Your task to perform on an android device: turn on the 24-hour format for clock Image 0: 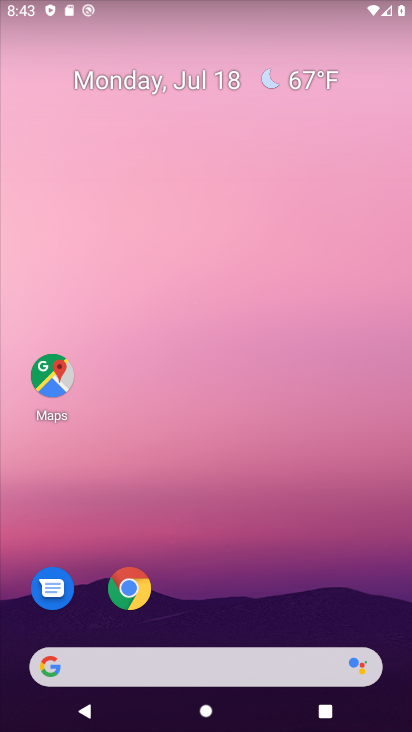
Step 0: drag from (364, 621) to (354, 148)
Your task to perform on an android device: turn on the 24-hour format for clock Image 1: 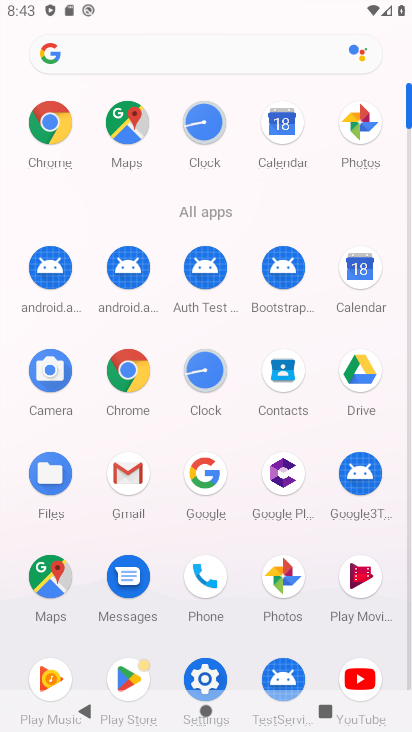
Step 1: click (199, 372)
Your task to perform on an android device: turn on the 24-hour format for clock Image 2: 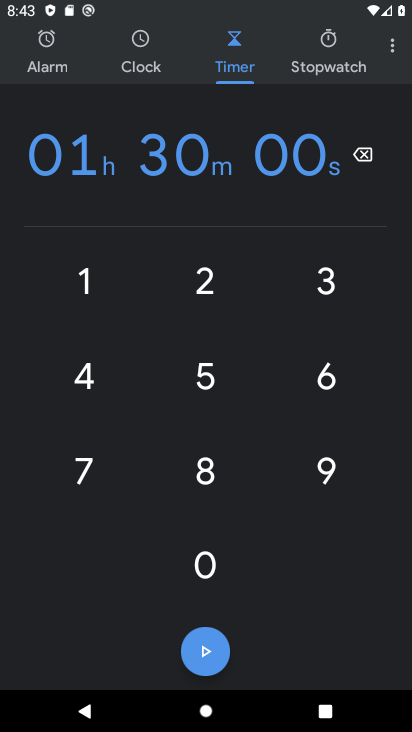
Step 2: click (392, 56)
Your task to perform on an android device: turn on the 24-hour format for clock Image 3: 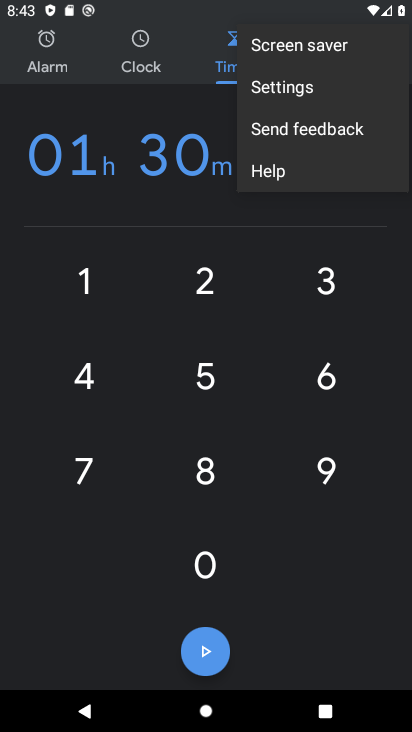
Step 3: click (283, 89)
Your task to perform on an android device: turn on the 24-hour format for clock Image 4: 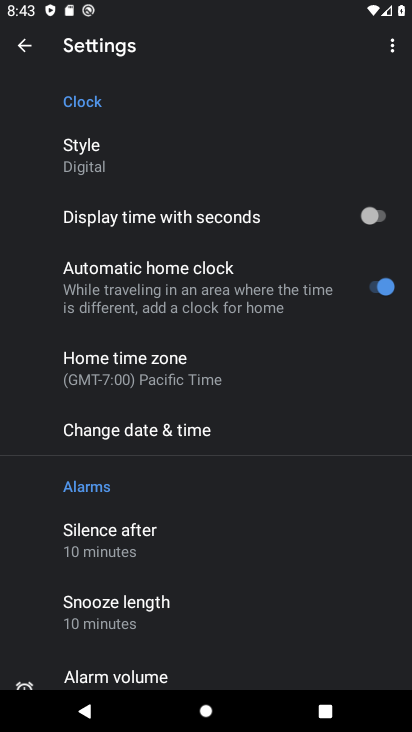
Step 4: click (166, 421)
Your task to perform on an android device: turn on the 24-hour format for clock Image 5: 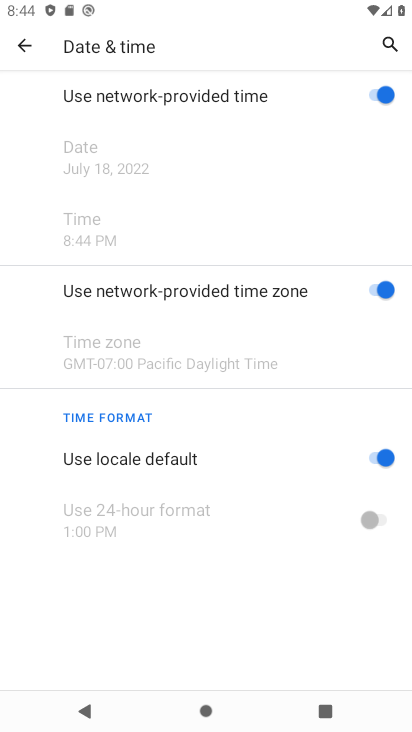
Step 5: click (368, 457)
Your task to perform on an android device: turn on the 24-hour format for clock Image 6: 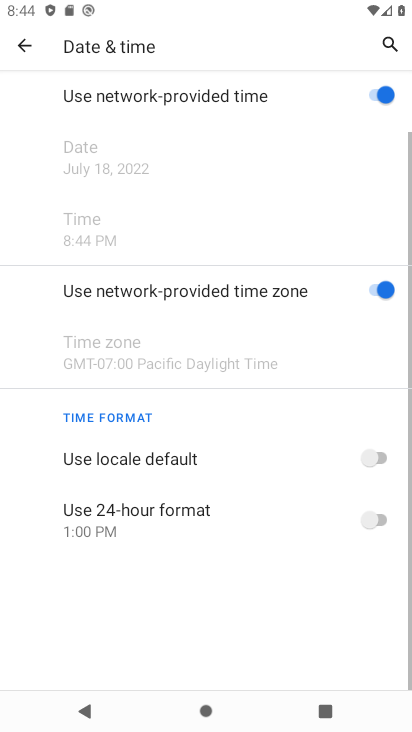
Step 6: click (378, 522)
Your task to perform on an android device: turn on the 24-hour format for clock Image 7: 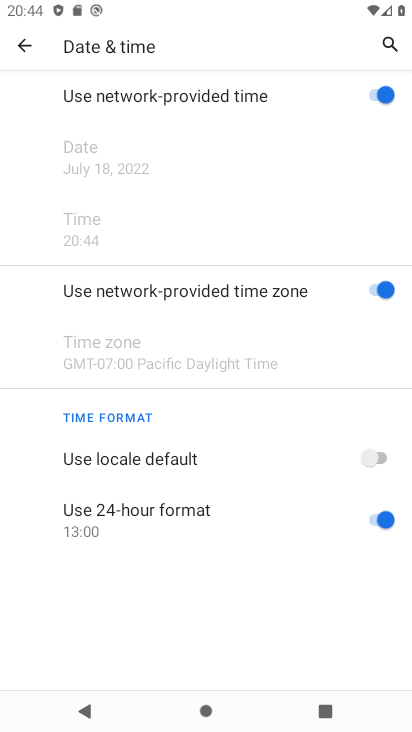
Step 7: task complete